Your task to perform on an android device: turn on data saver in the chrome app Image 0: 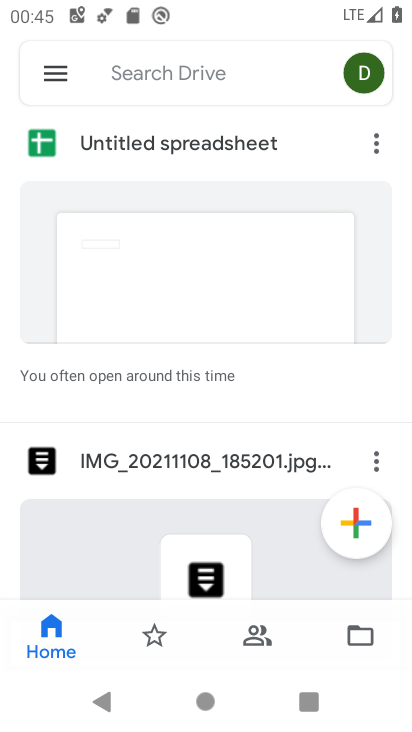
Step 0: press home button
Your task to perform on an android device: turn on data saver in the chrome app Image 1: 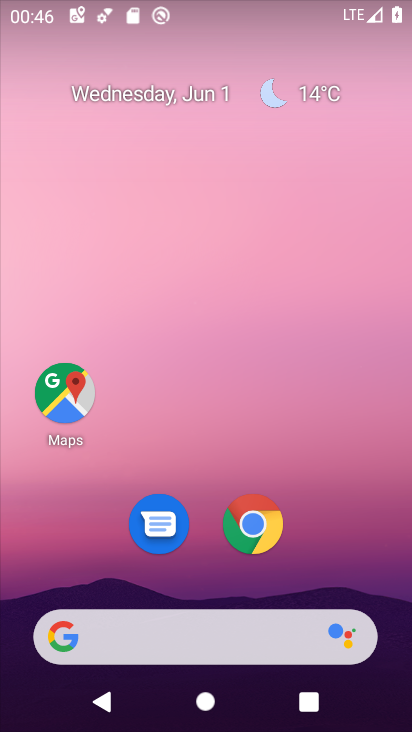
Step 1: click (257, 515)
Your task to perform on an android device: turn on data saver in the chrome app Image 2: 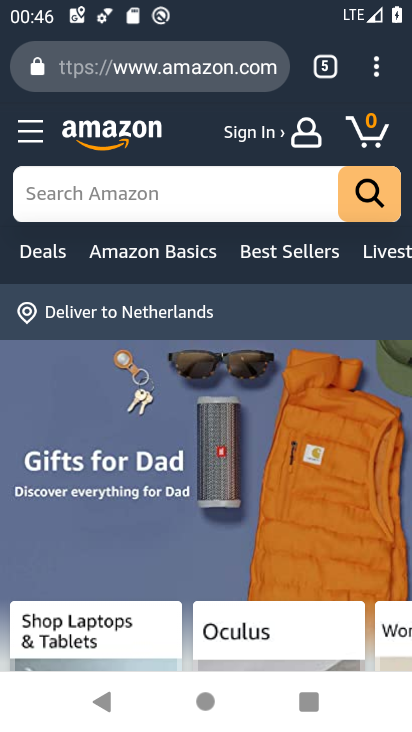
Step 2: click (380, 77)
Your task to perform on an android device: turn on data saver in the chrome app Image 3: 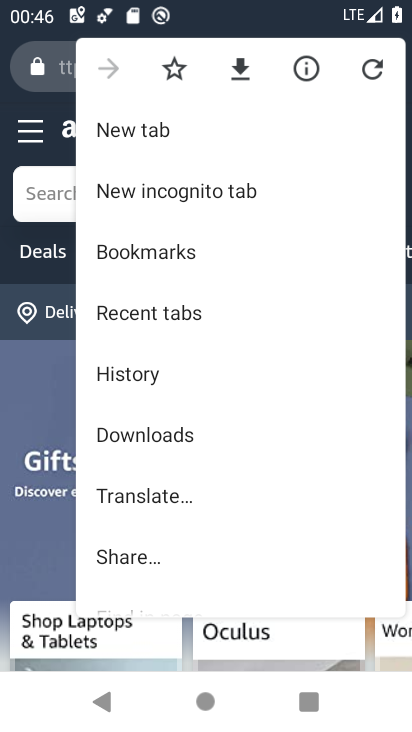
Step 3: drag from (273, 510) to (274, 186)
Your task to perform on an android device: turn on data saver in the chrome app Image 4: 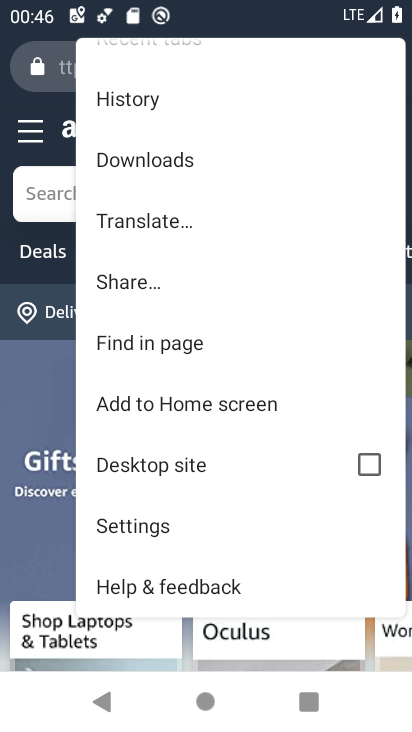
Step 4: click (214, 521)
Your task to perform on an android device: turn on data saver in the chrome app Image 5: 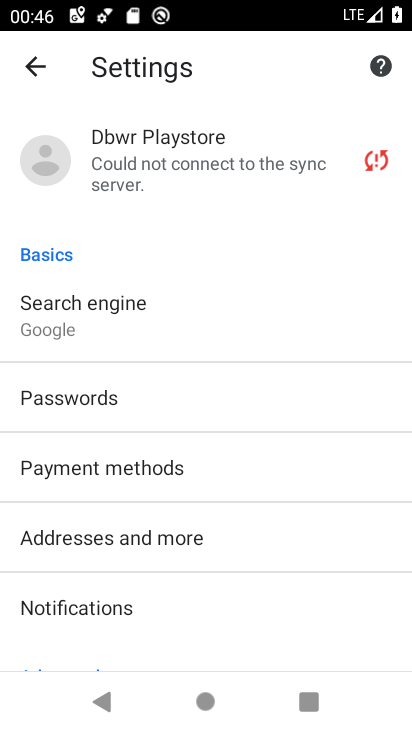
Step 5: drag from (236, 597) to (232, 135)
Your task to perform on an android device: turn on data saver in the chrome app Image 6: 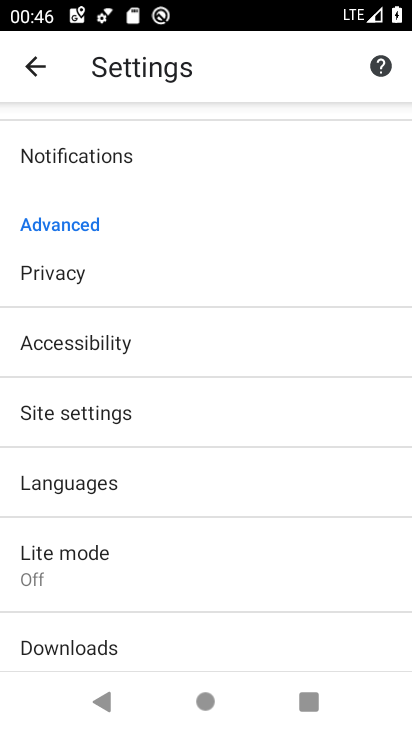
Step 6: click (136, 574)
Your task to perform on an android device: turn on data saver in the chrome app Image 7: 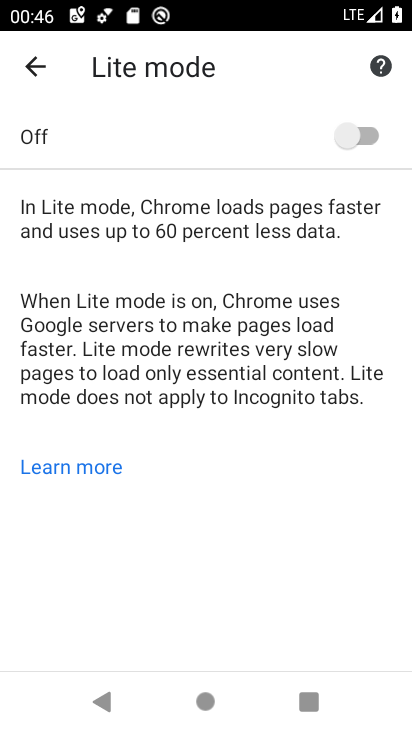
Step 7: click (360, 128)
Your task to perform on an android device: turn on data saver in the chrome app Image 8: 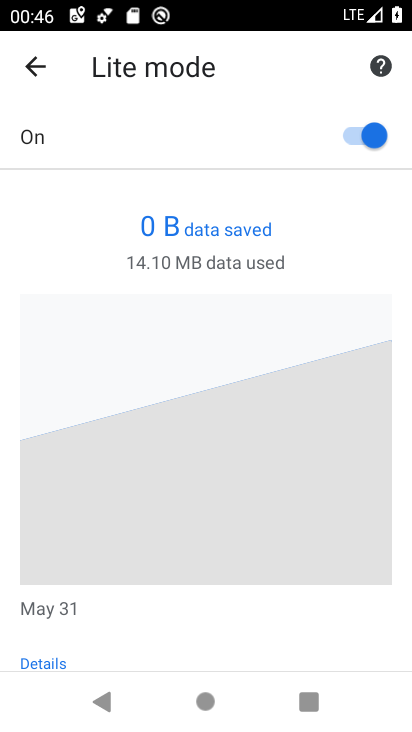
Step 8: task complete